Your task to perform on an android device: Show me the alarms in the clock app Image 0: 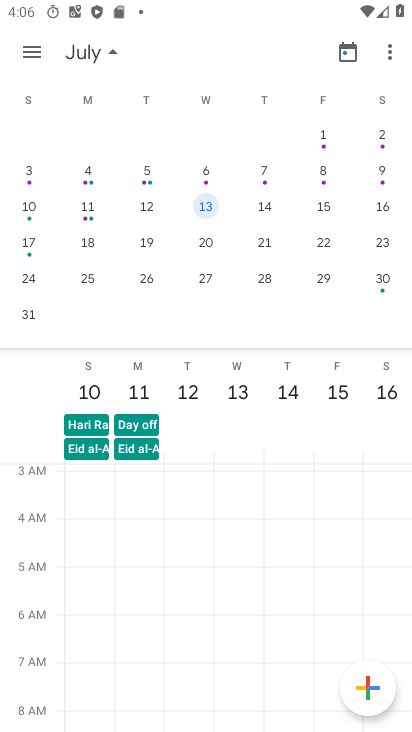
Step 0: press home button
Your task to perform on an android device: Show me the alarms in the clock app Image 1: 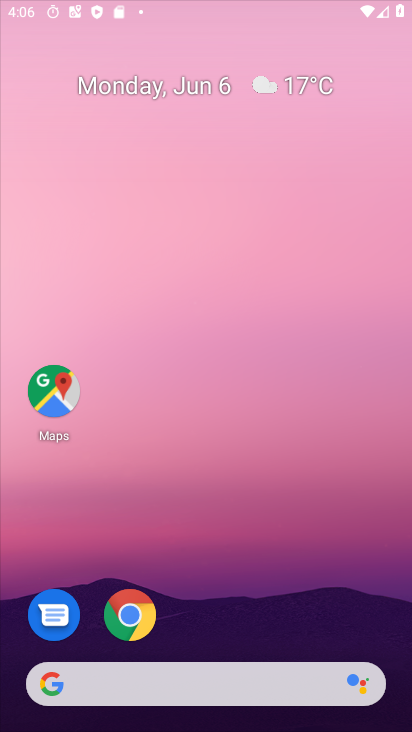
Step 1: drag from (185, 608) to (283, 8)
Your task to perform on an android device: Show me the alarms in the clock app Image 2: 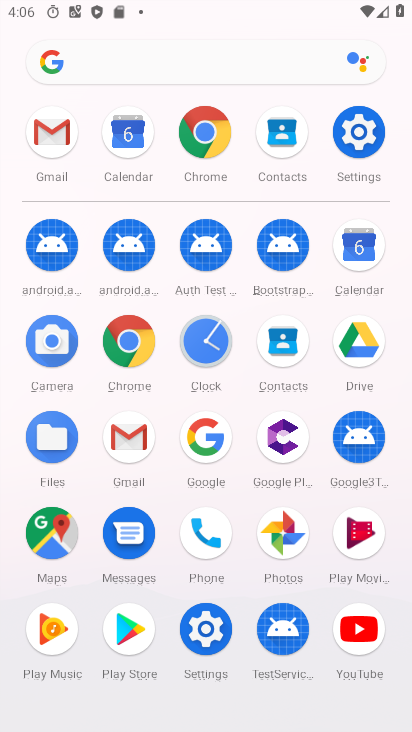
Step 2: click (206, 335)
Your task to perform on an android device: Show me the alarms in the clock app Image 3: 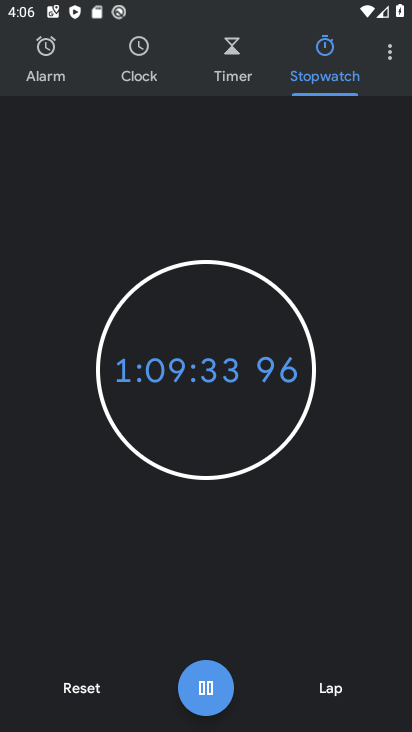
Step 3: click (43, 65)
Your task to perform on an android device: Show me the alarms in the clock app Image 4: 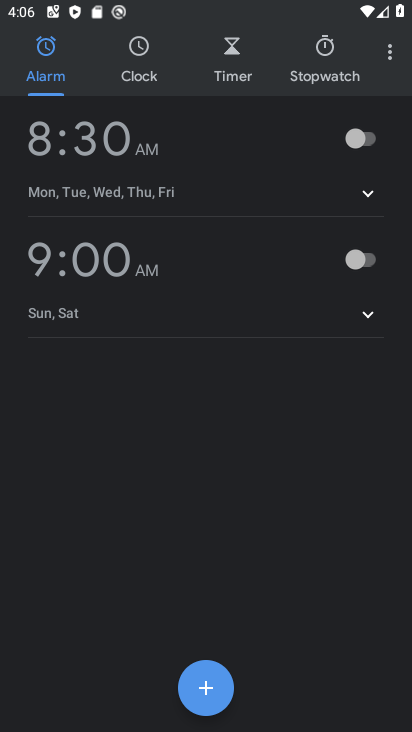
Step 4: task complete